Your task to perform on an android device: turn off improve location accuracy Image 0: 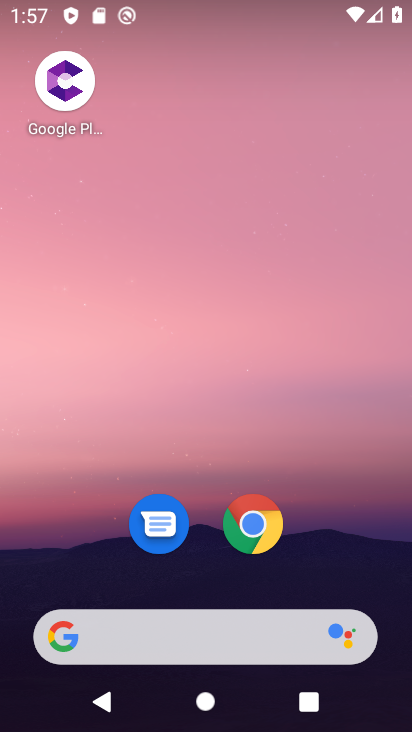
Step 0: drag from (202, 640) to (409, 296)
Your task to perform on an android device: turn off improve location accuracy Image 1: 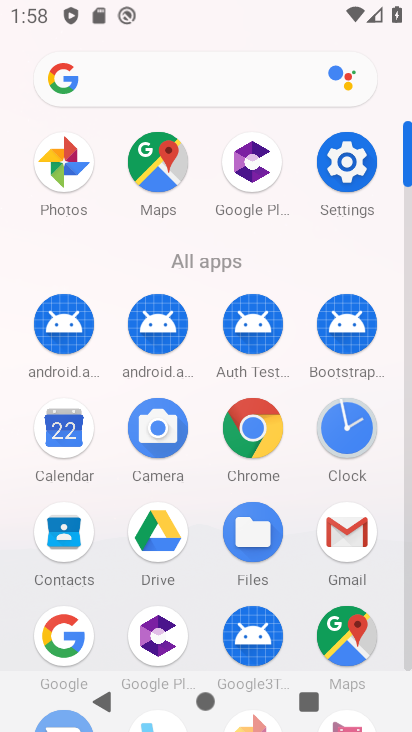
Step 1: click (372, 181)
Your task to perform on an android device: turn off improve location accuracy Image 2: 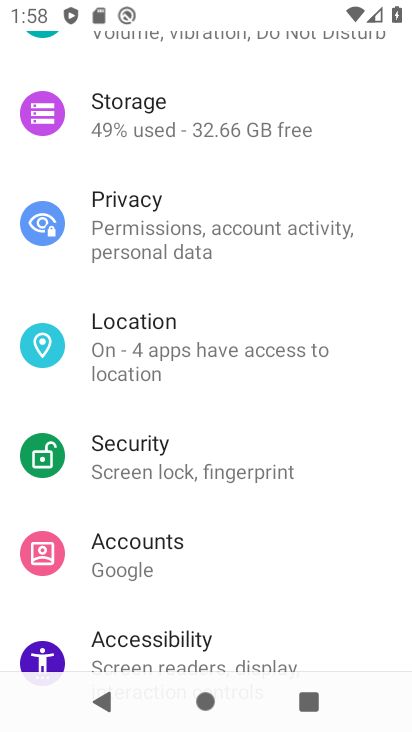
Step 2: drag from (179, 557) to (164, 378)
Your task to perform on an android device: turn off improve location accuracy Image 3: 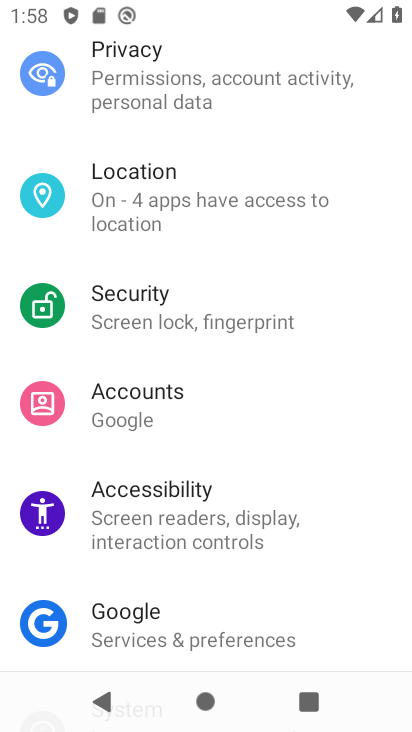
Step 3: click (140, 221)
Your task to perform on an android device: turn off improve location accuracy Image 4: 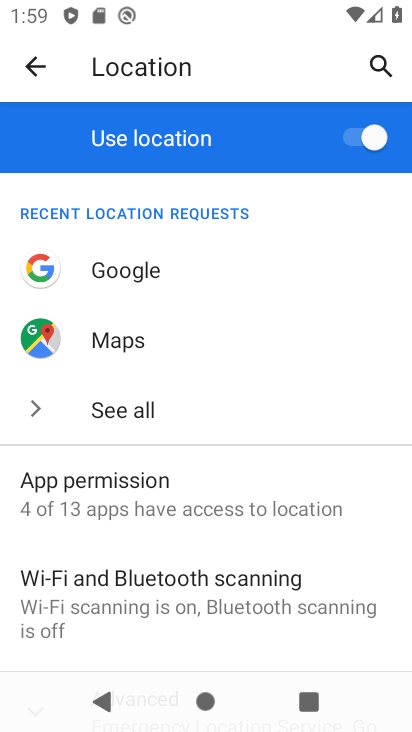
Step 4: drag from (172, 599) to (149, 253)
Your task to perform on an android device: turn off improve location accuracy Image 5: 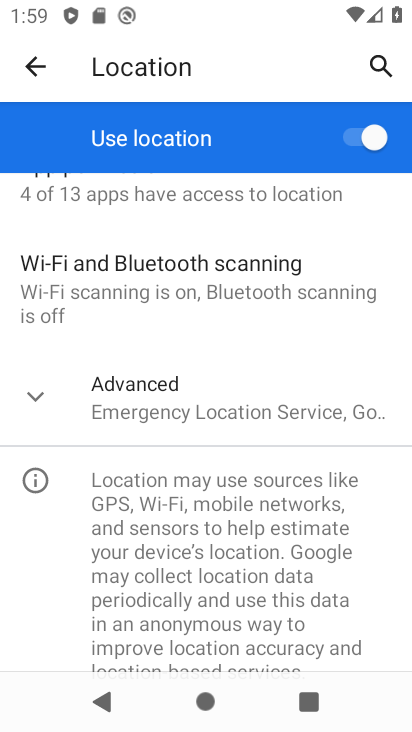
Step 5: click (160, 603)
Your task to perform on an android device: turn off improve location accuracy Image 6: 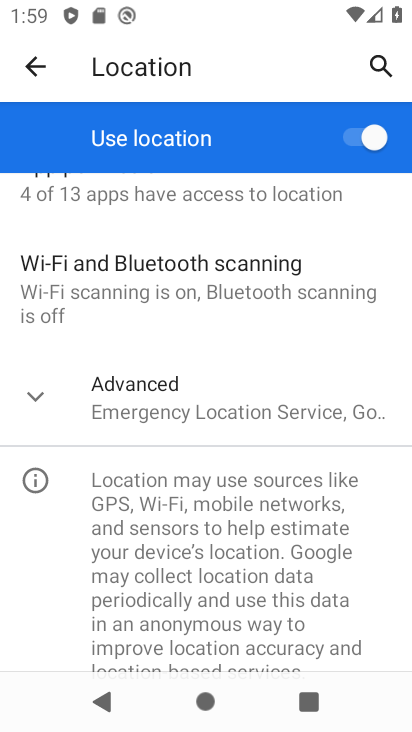
Step 6: click (173, 389)
Your task to perform on an android device: turn off improve location accuracy Image 7: 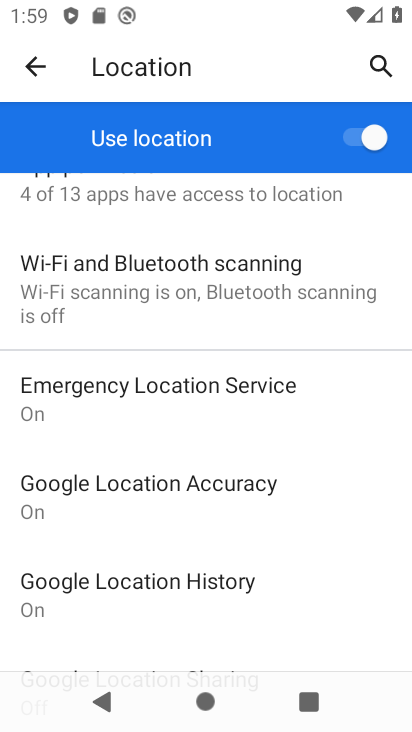
Step 7: click (168, 508)
Your task to perform on an android device: turn off improve location accuracy Image 8: 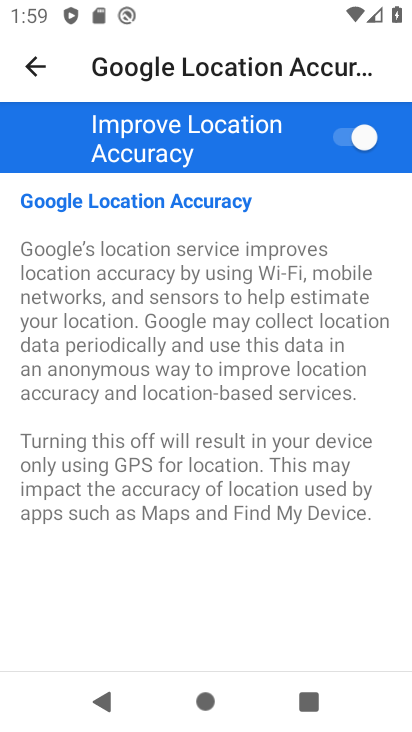
Step 8: click (358, 141)
Your task to perform on an android device: turn off improve location accuracy Image 9: 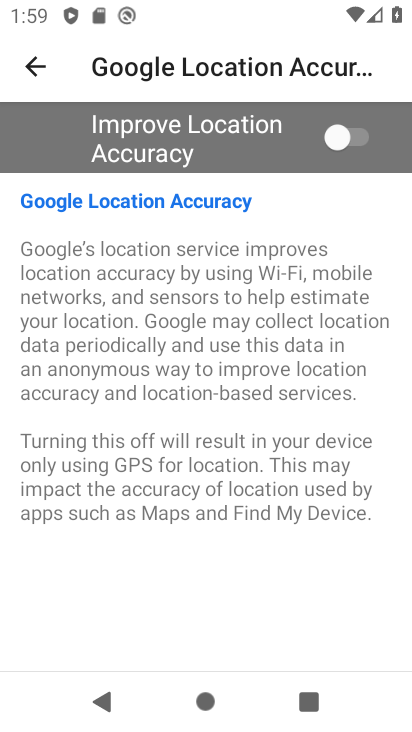
Step 9: task complete